Your task to perform on an android device: Do I have any events this weekend? Image 0: 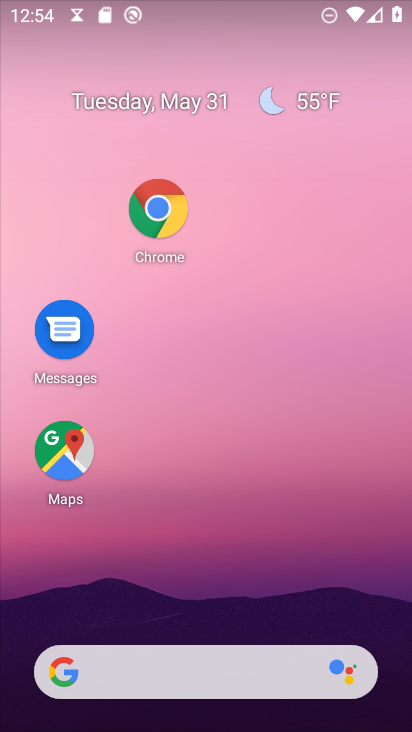
Step 0: drag from (179, 560) to (230, 156)
Your task to perform on an android device: Do I have any events this weekend? Image 1: 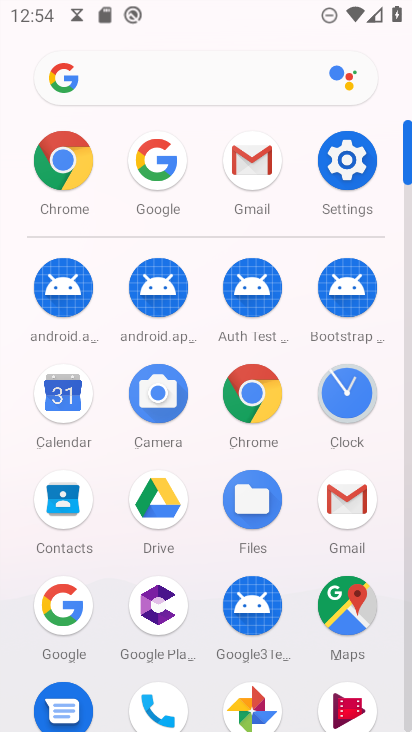
Step 1: click (72, 394)
Your task to perform on an android device: Do I have any events this weekend? Image 2: 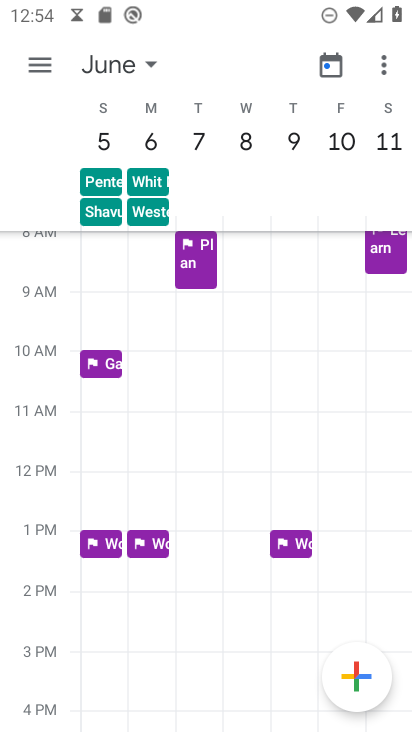
Step 2: click (108, 67)
Your task to perform on an android device: Do I have any events this weekend? Image 3: 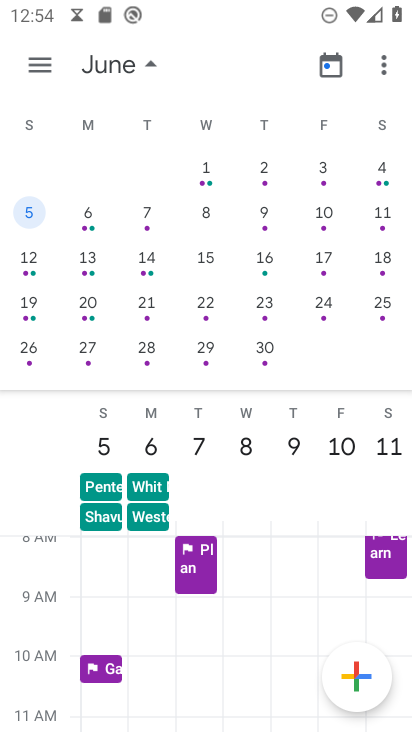
Step 3: click (381, 171)
Your task to perform on an android device: Do I have any events this weekend? Image 4: 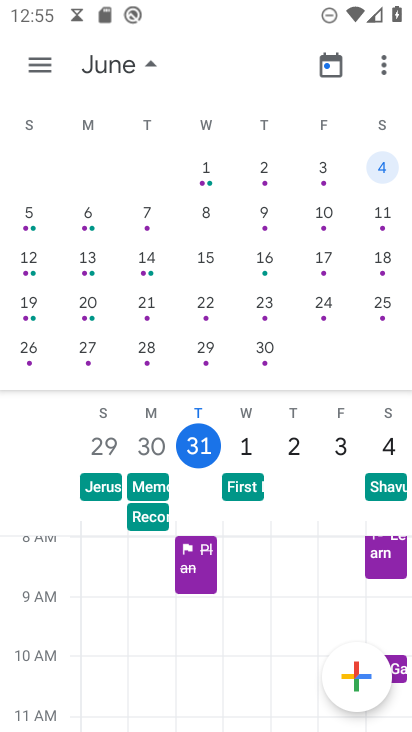
Step 4: click (33, 65)
Your task to perform on an android device: Do I have any events this weekend? Image 5: 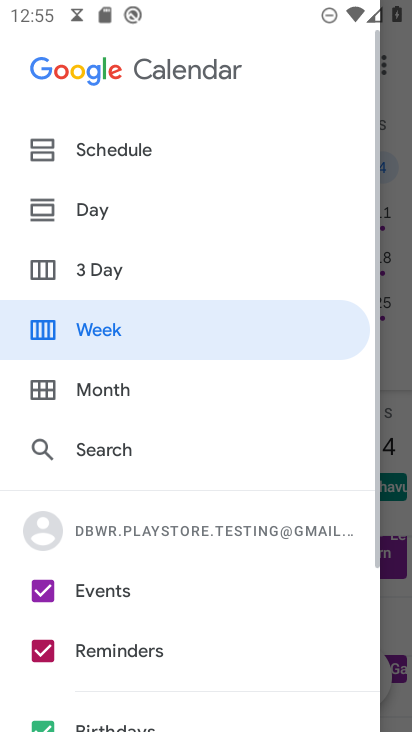
Step 5: click (92, 146)
Your task to perform on an android device: Do I have any events this weekend? Image 6: 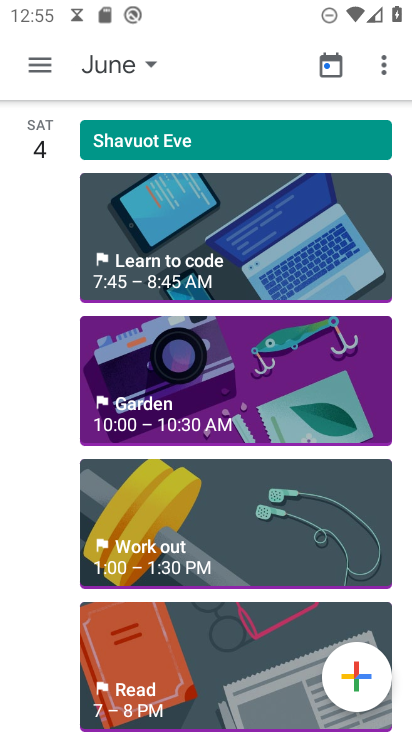
Step 6: task complete